Your task to perform on an android device: Open Yahoo.com Image 0: 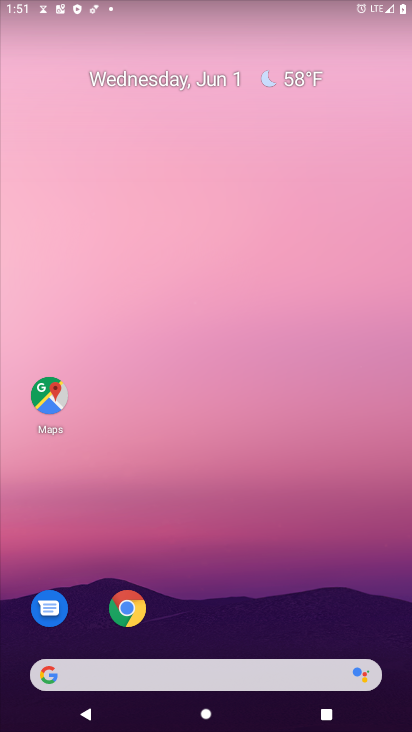
Step 0: click (122, 611)
Your task to perform on an android device: Open Yahoo.com Image 1: 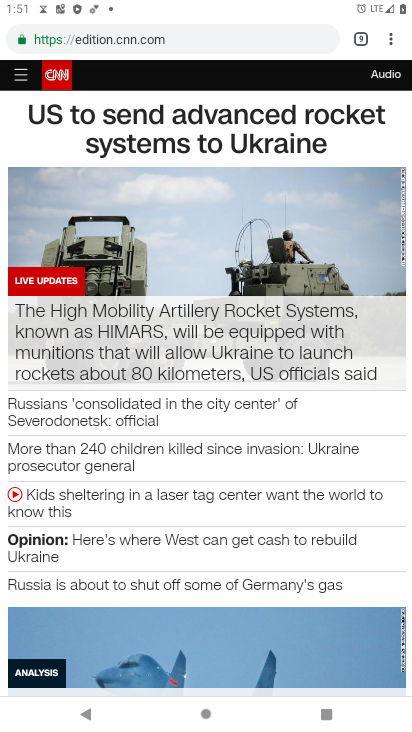
Step 1: click (367, 34)
Your task to perform on an android device: Open Yahoo.com Image 2: 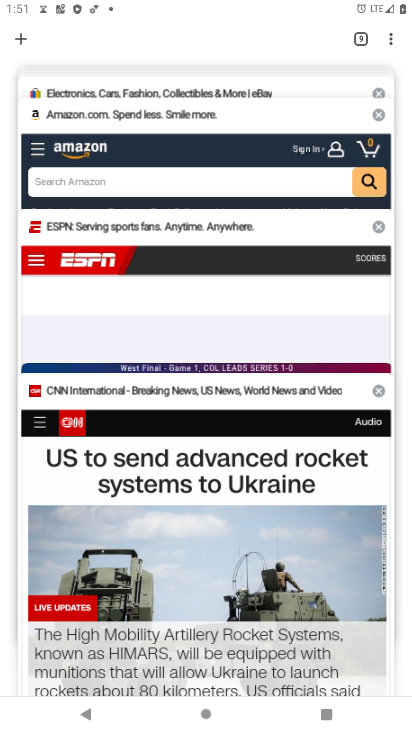
Step 2: drag from (199, 135) to (218, 539)
Your task to perform on an android device: Open Yahoo.com Image 3: 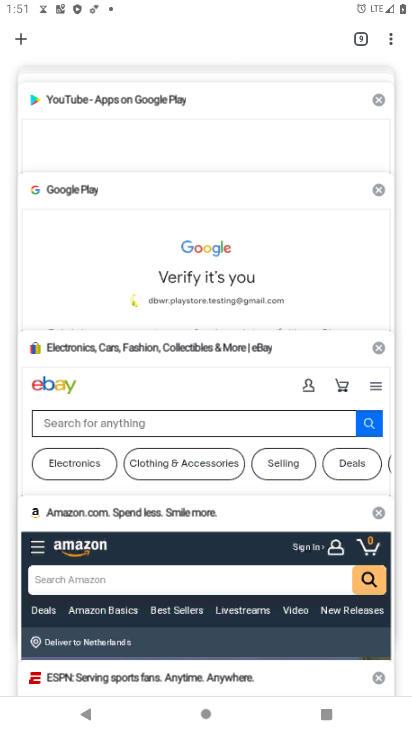
Step 3: drag from (131, 217) to (276, 720)
Your task to perform on an android device: Open Yahoo.com Image 4: 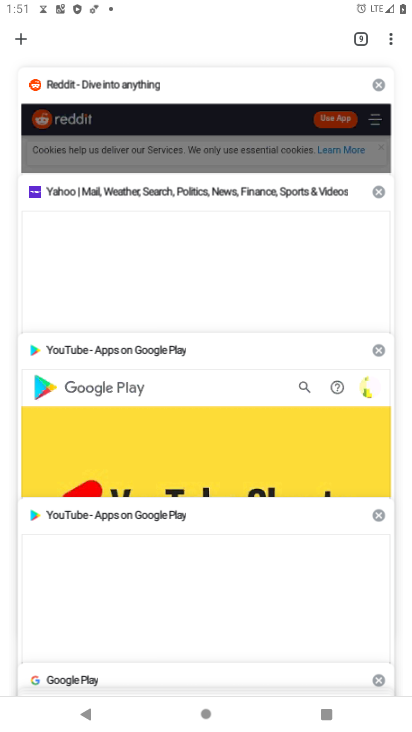
Step 4: click (118, 272)
Your task to perform on an android device: Open Yahoo.com Image 5: 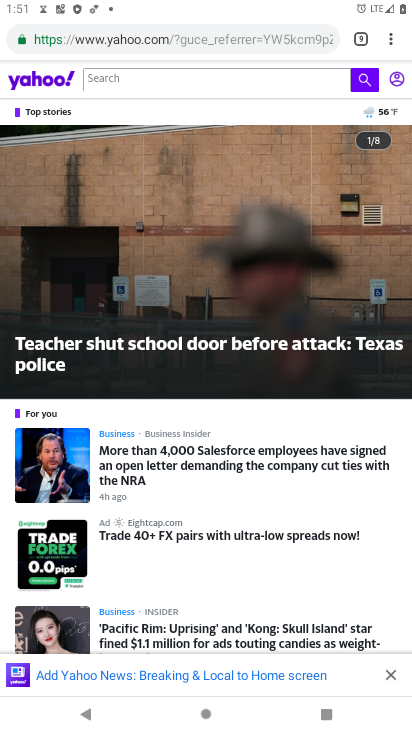
Step 5: task complete